Your task to perform on an android device: change the clock style Image 0: 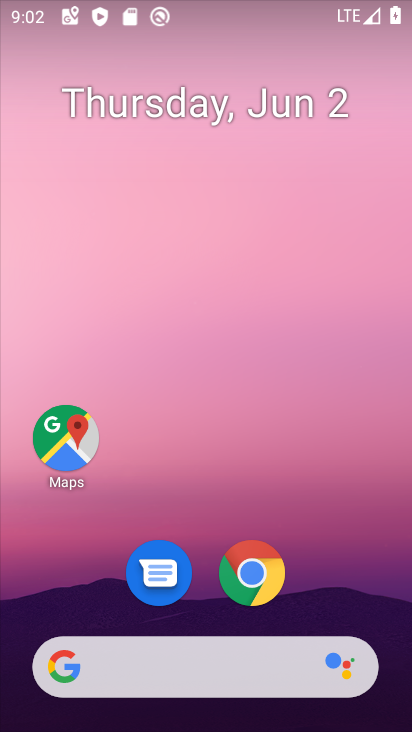
Step 0: drag from (329, 591) to (354, 162)
Your task to perform on an android device: change the clock style Image 1: 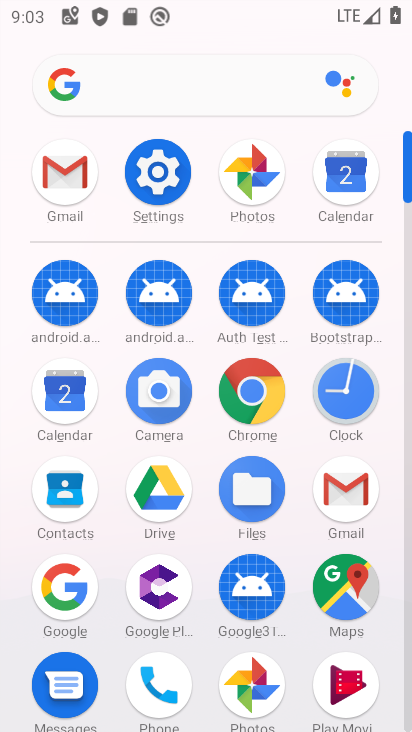
Step 1: click (336, 376)
Your task to perform on an android device: change the clock style Image 2: 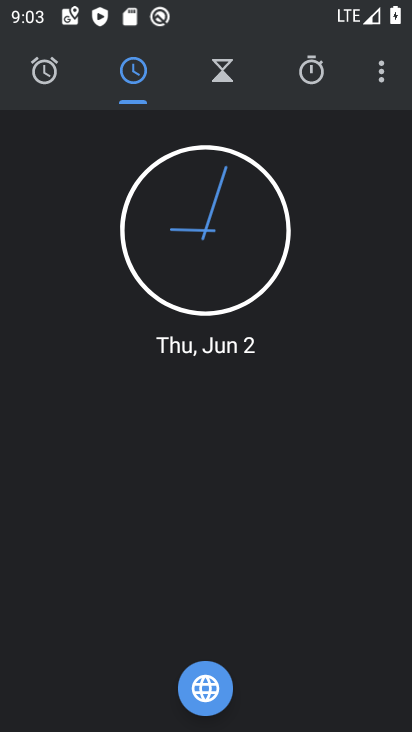
Step 2: click (366, 69)
Your task to perform on an android device: change the clock style Image 3: 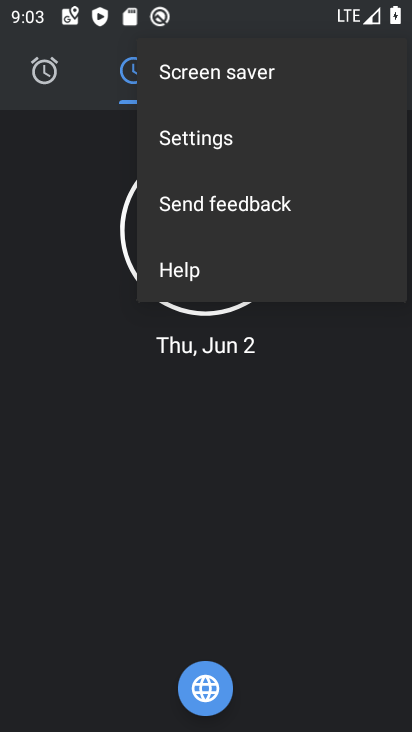
Step 3: click (213, 133)
Your task to perform on an android device: change the clock style Image 4: 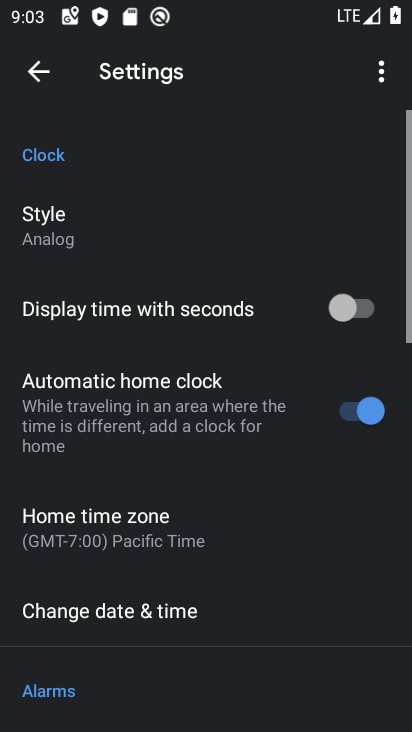
Step 4: click (34, 234)
Your task to perform on an android device: change the clock style Image 5: 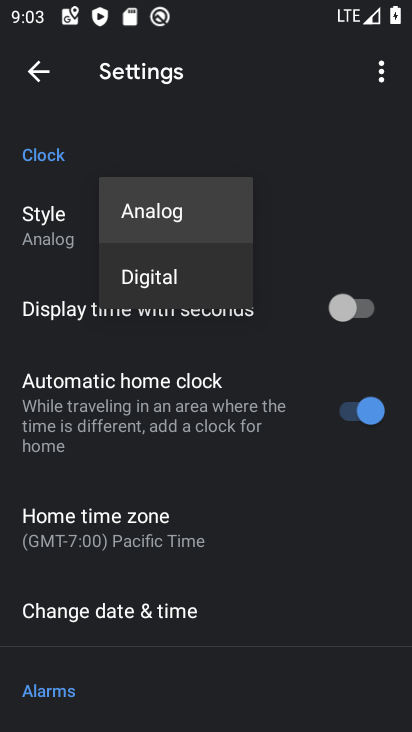
Step 5: click (216, 296)
Your task to perform on an android device: change the clock style Image 6: 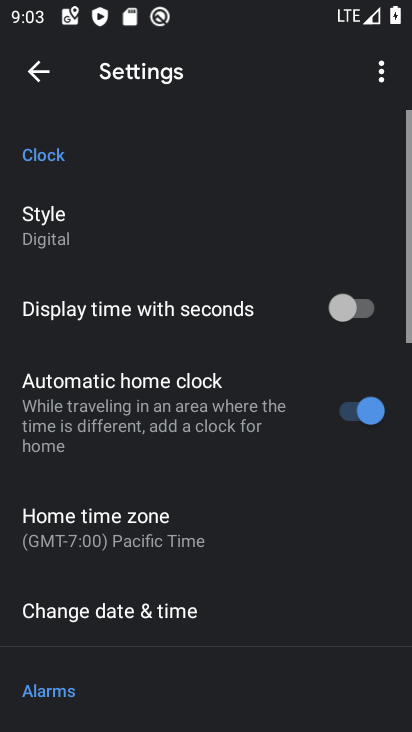
Step 6: task complete